Your task to perform on an android device: Open calendar and show me the fourth week of next month Image 0: 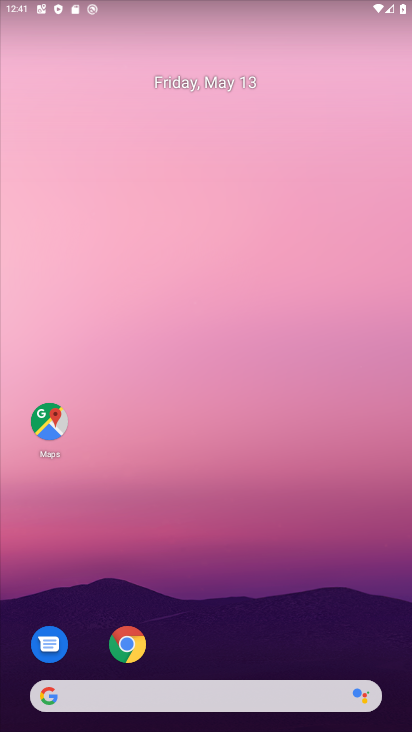
Step 0: drag from (294, 591) to (271, 114)
Your task to perform on an android device: Open calendar and show me the fourth week of next month Image 1: 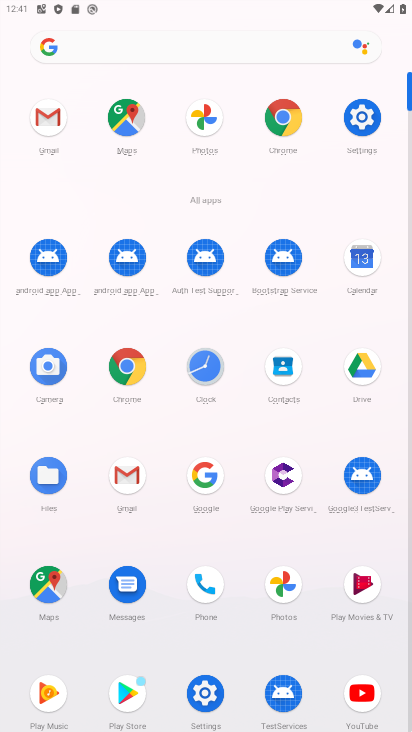
Step 1: click (356, 266)
Your task to perform on an android device: Open calendar and show me the fourth week of next month Image 2: 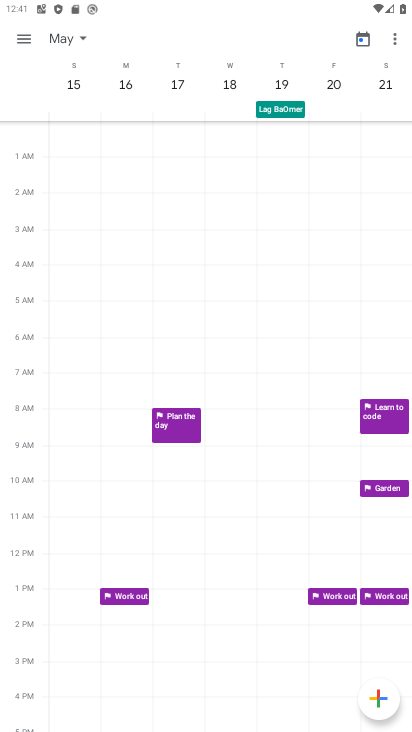
Step 2: drag from (265, 606) to (250, 177)
Your task to perform on an android device: Open calendar and show me the fourth week of next month Image 3: 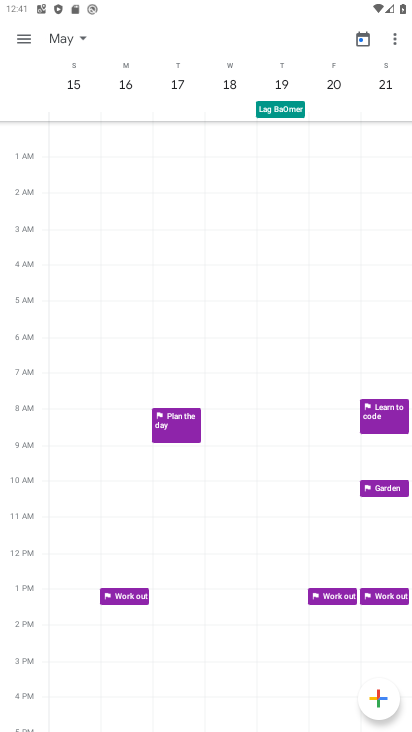
Step 3: drag from (269, 677) to (283, 234)
Your task to perform on an android device: Open calendar and show me the fourth week of next month Image 4: 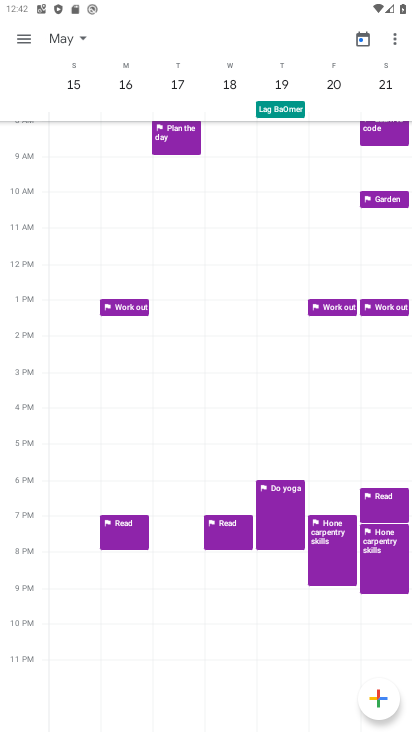
Step 4: click (76, 34)
Your task to perform on an android device: Open calendar and show me the fourth week of next month Image 5: 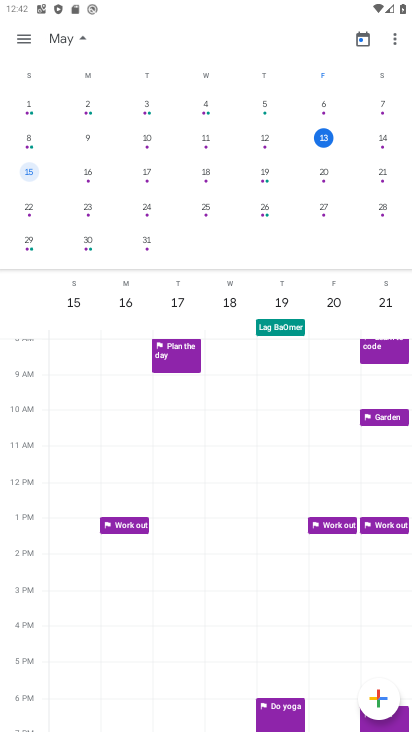
Step 5: drag from (384, 183) to (4, 183)
Your task to perform on an android device: Open calendar and show me the fourth week of next month Image 6: 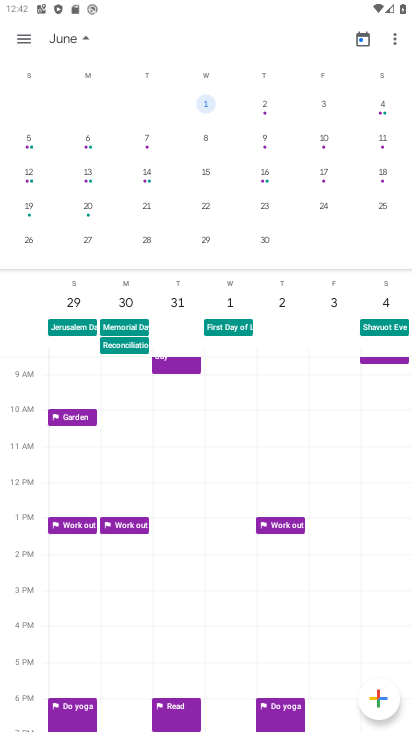
Step 6: click (210, 204)
Your task to perform on an android device: Open calendar and show me the fourth week of next month Image 7: 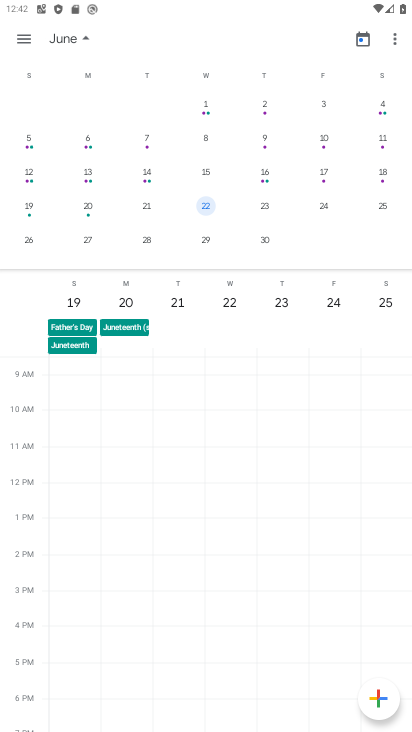
Step 7: task complete